Your task to perform on an android device: Go to Google maps Image 0: 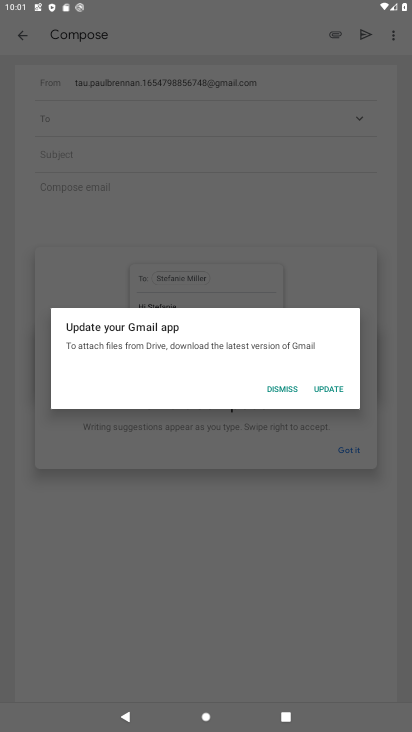
Step 0: click (284, 389)
Your task to perform on an android device: Go to Google maps Image 1: 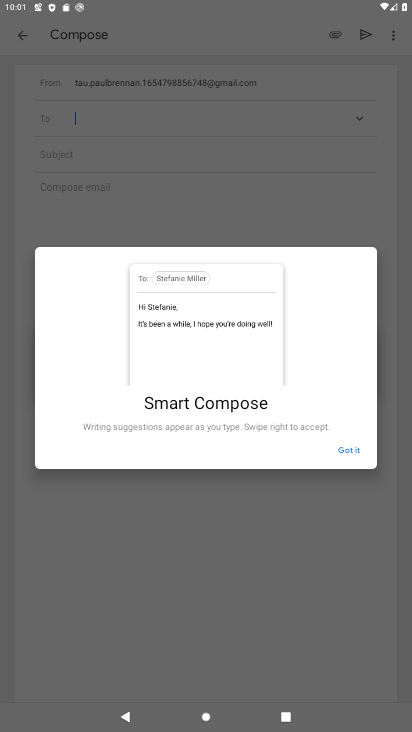
Step 1: click (344, 448)
Your task to perform on an android device: Go to Google maps Image 2: 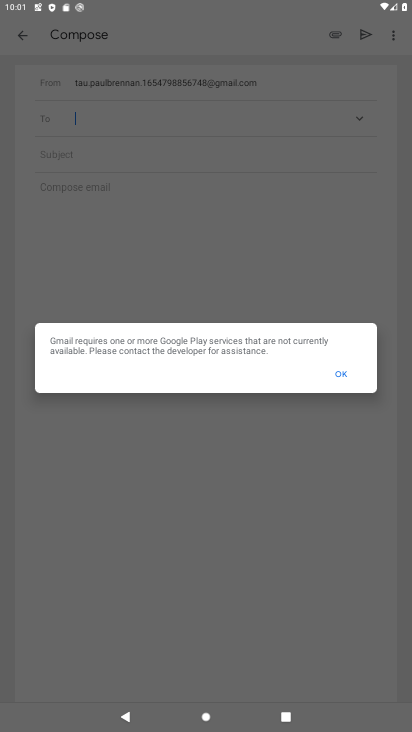
Step 2: press home button
Your task to perform on an android device: Go to Google maps Image 3: 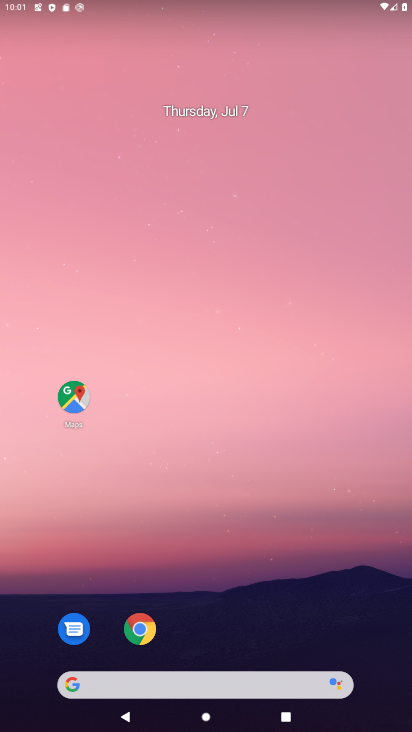
Step 3: drag from (238, 671) to (157, 116)
Your task to perform on an android device: Go to Google maps Image 4: 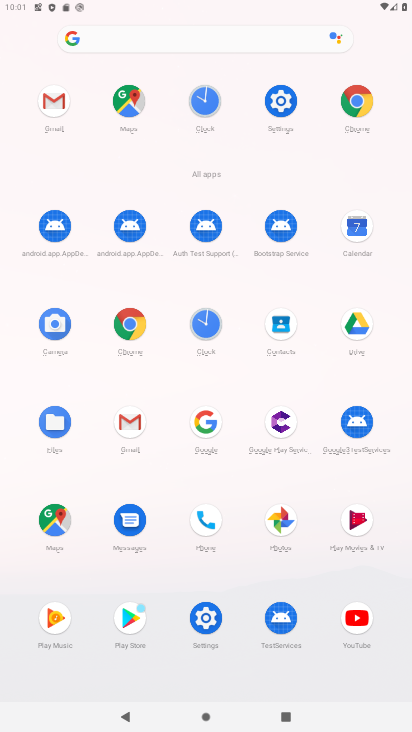
Step 4: click (134, 117)
Your task to perform on an android device: Go to Google maps Image 5: 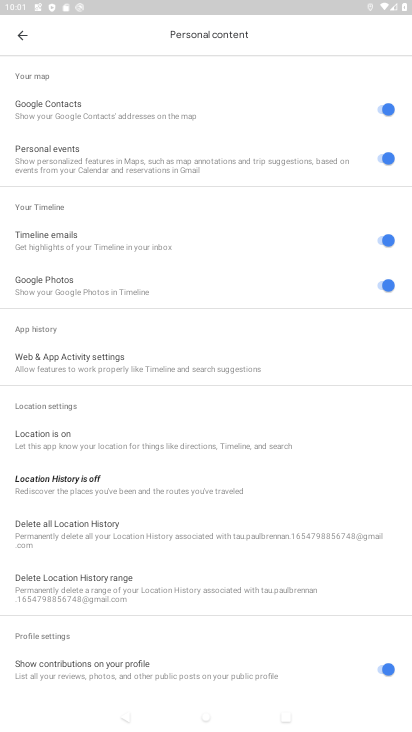
Step 5: click (19, 40)
Your task to perform on an android device: Go to Google maps Image 6: 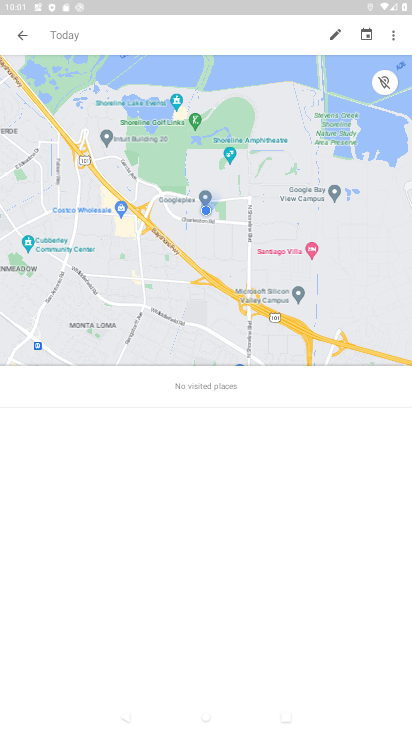
Step 6: task complete